Your task to perform on an android device: Go to Wikipedia Image 0: 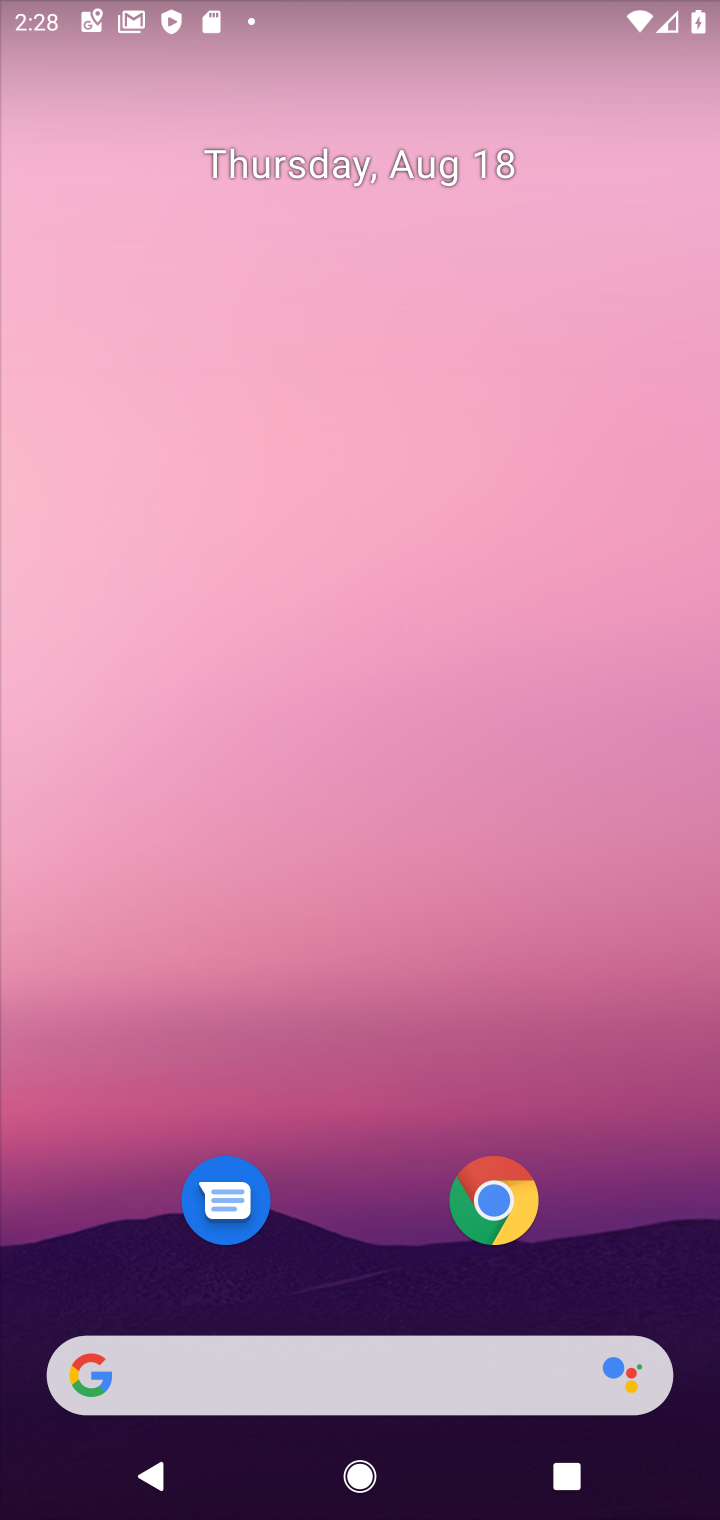
Step 0: drag from (357, 1203) to (371, 7)
Your task to perform on an android device: Go to Wikipedia Image 1: 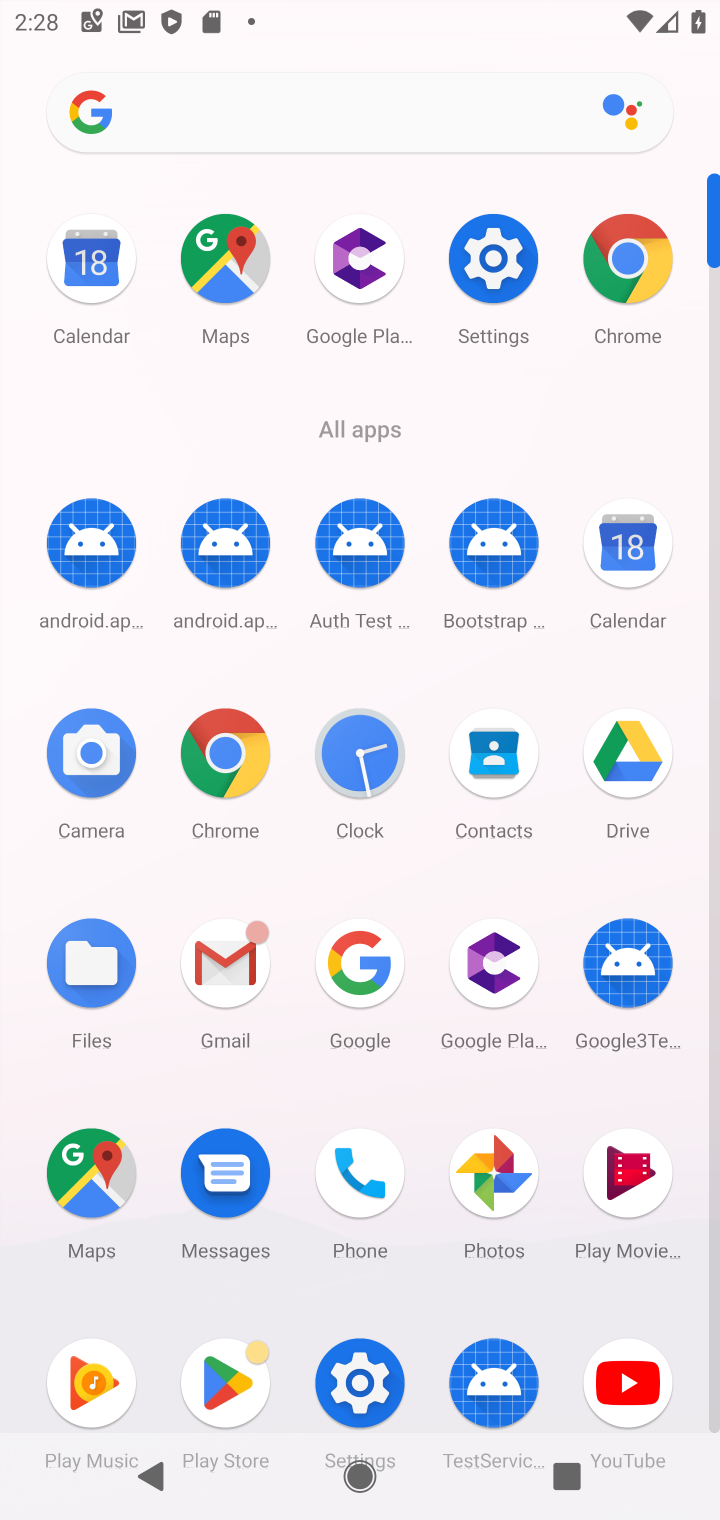
Step 1: click (204, 730)
Your task to perform on an android device: Go to Wikipedia Image 2: 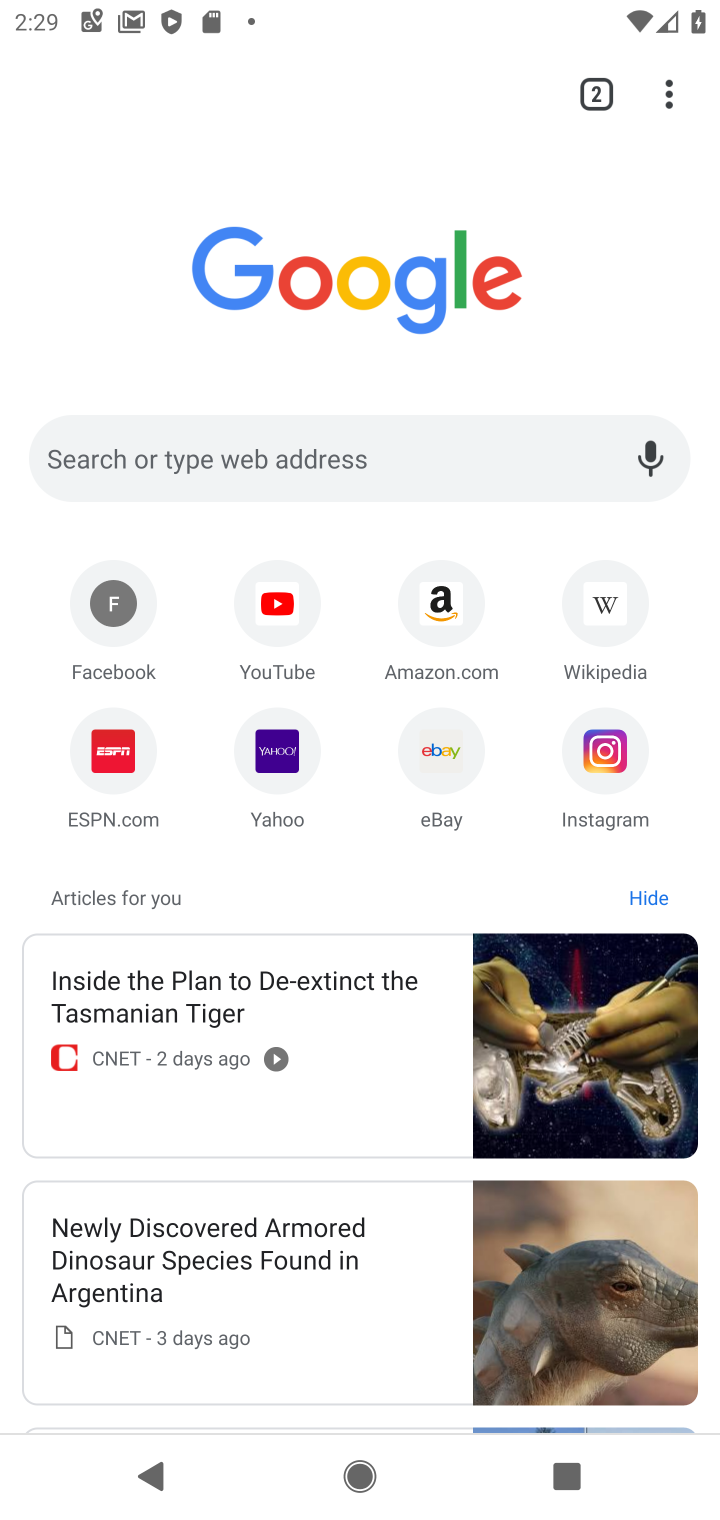
Step 2: click (404, 476)
Your task to perform on an android device: Go to Wikipedia Image 3: 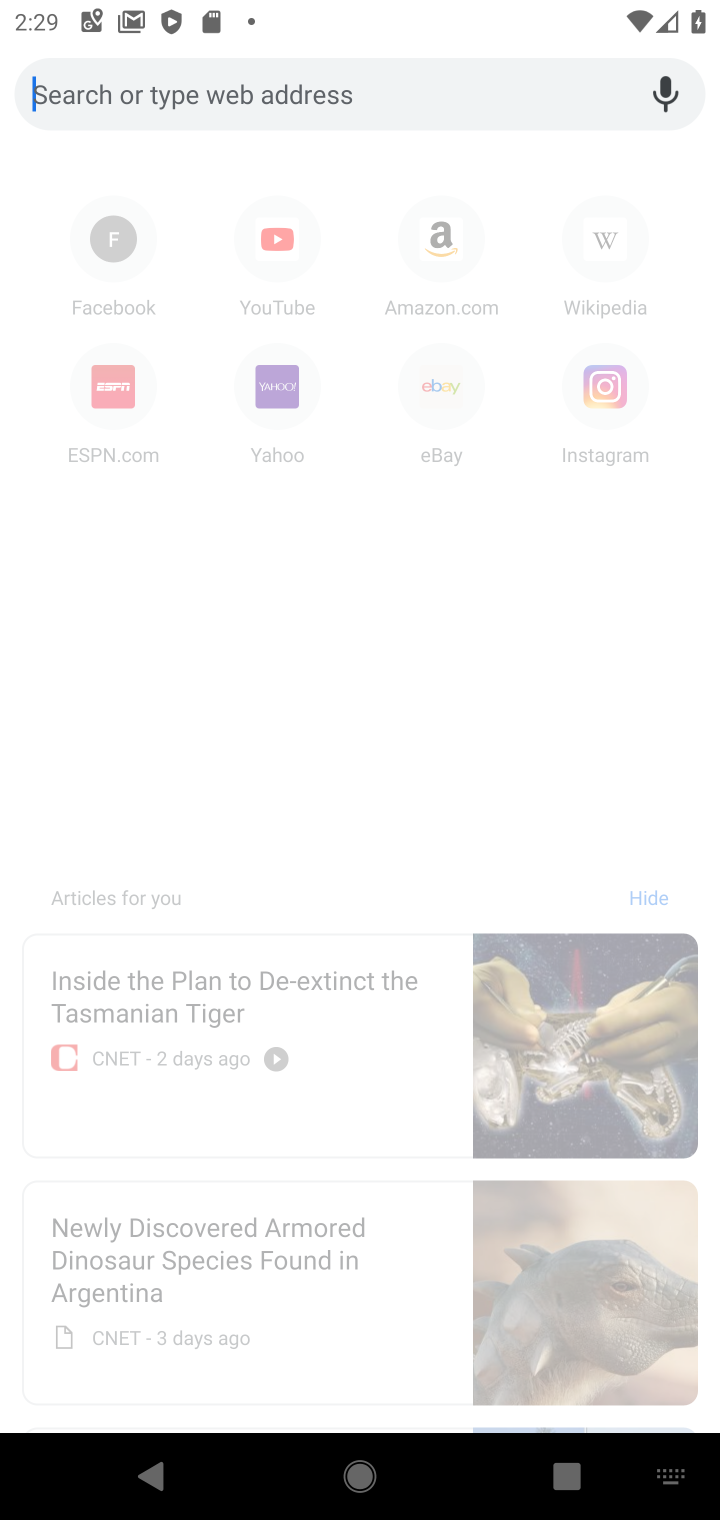
Step 3: click (599, 263)
Your task to perform on an android device: Go to Wikipedia Image 4: 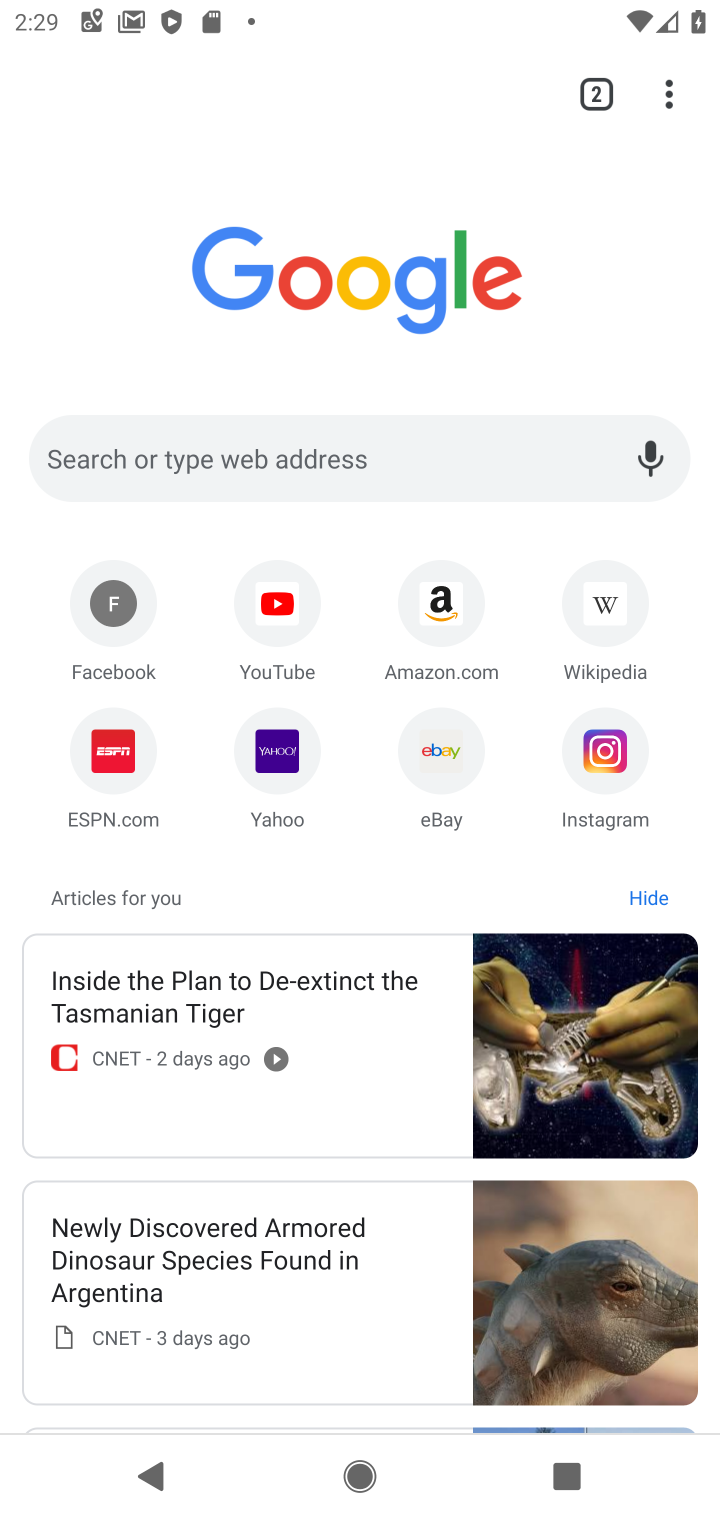
Step 4: click (594, 627)
Your task to perform on an android device: Go to Wikipedia Image 5: 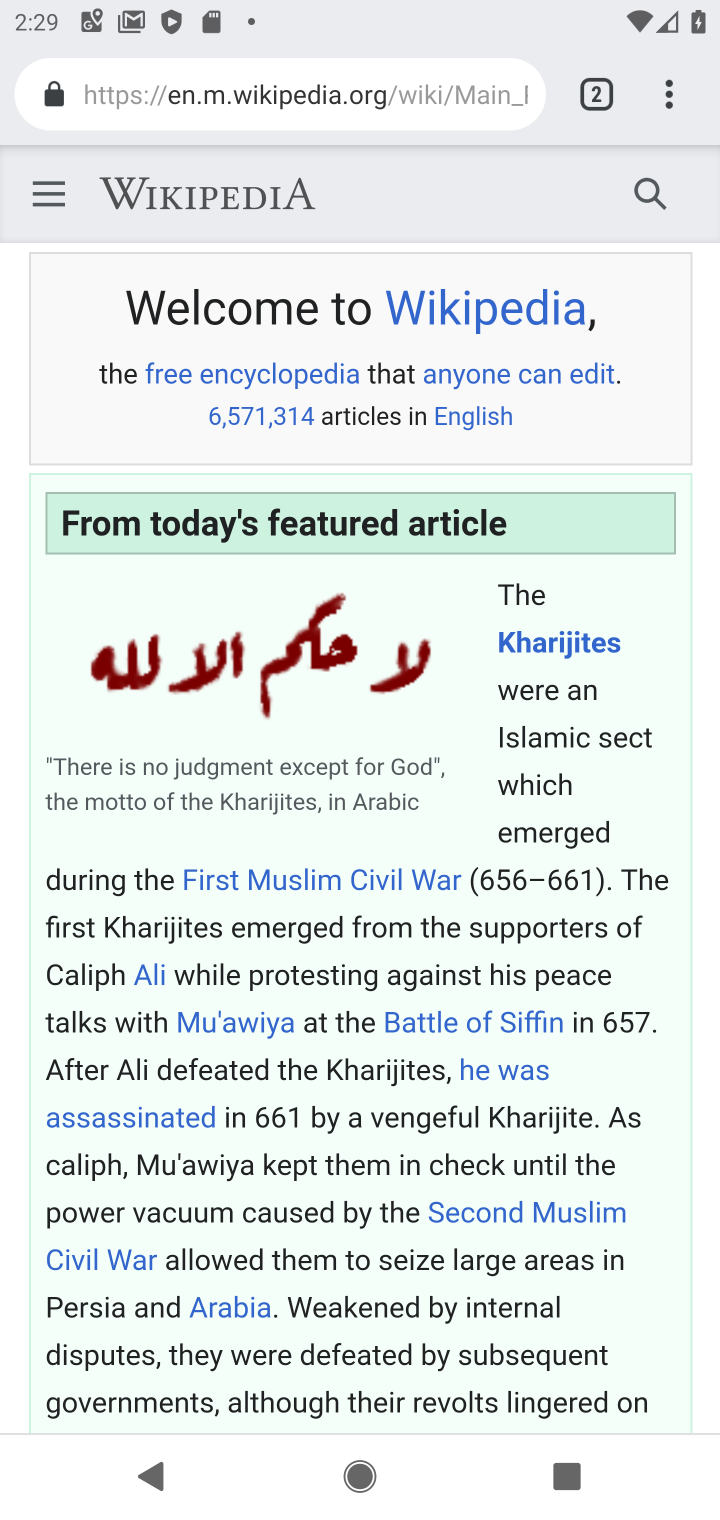
Step 5: task complete